Your task to perform on an android device: Open the map Image 0: 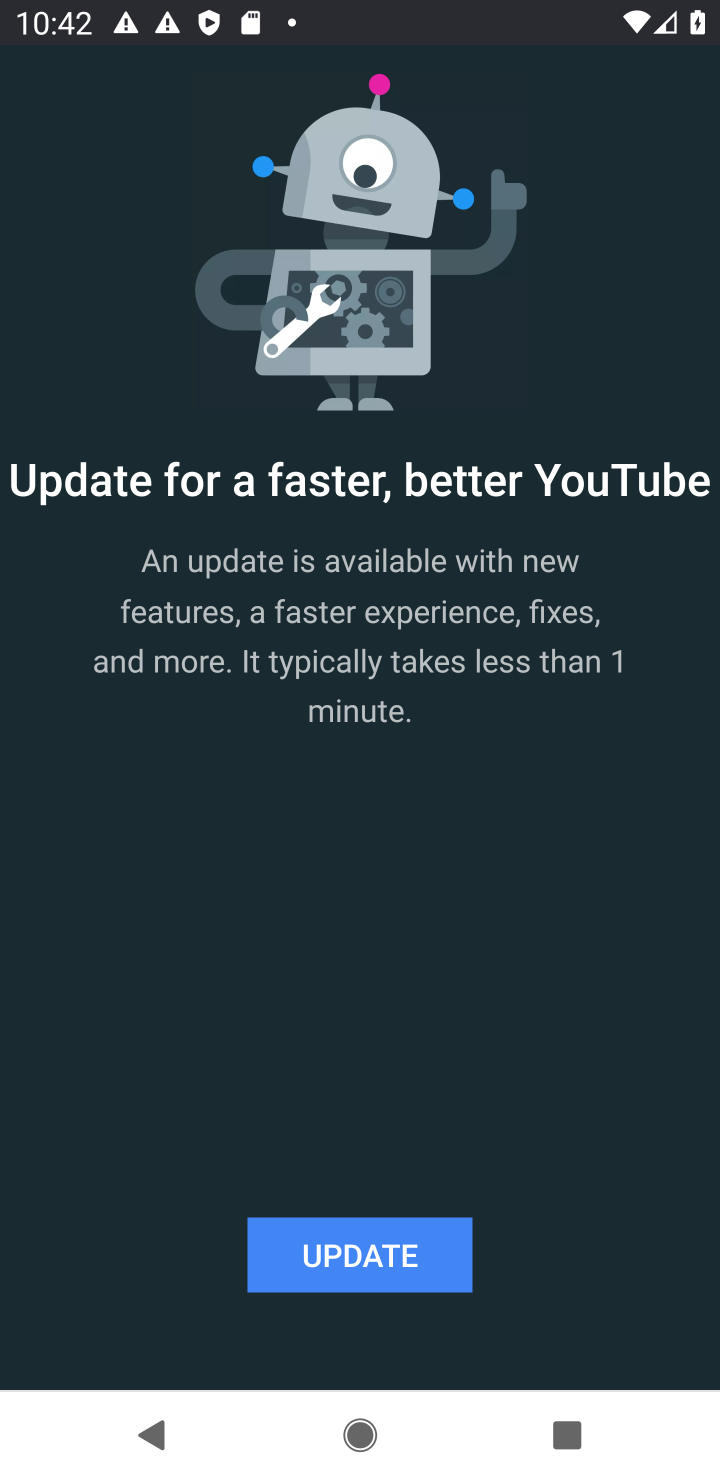
Step 0: press home button
Your task to perform on an android device: Open the map Image 1: 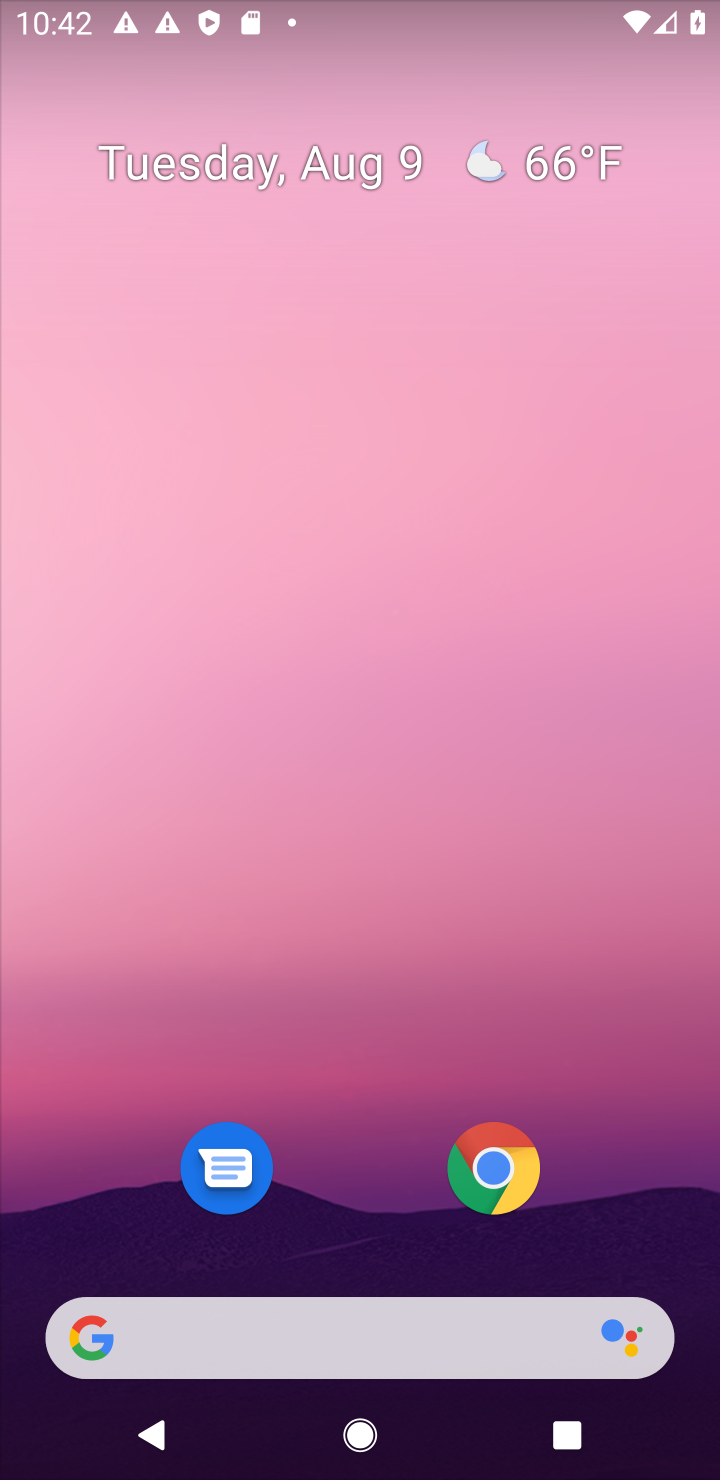
Step 1: drag from (339, 1202) to (304, 136)
Your task to perform on an android device: Open the map Image 2: 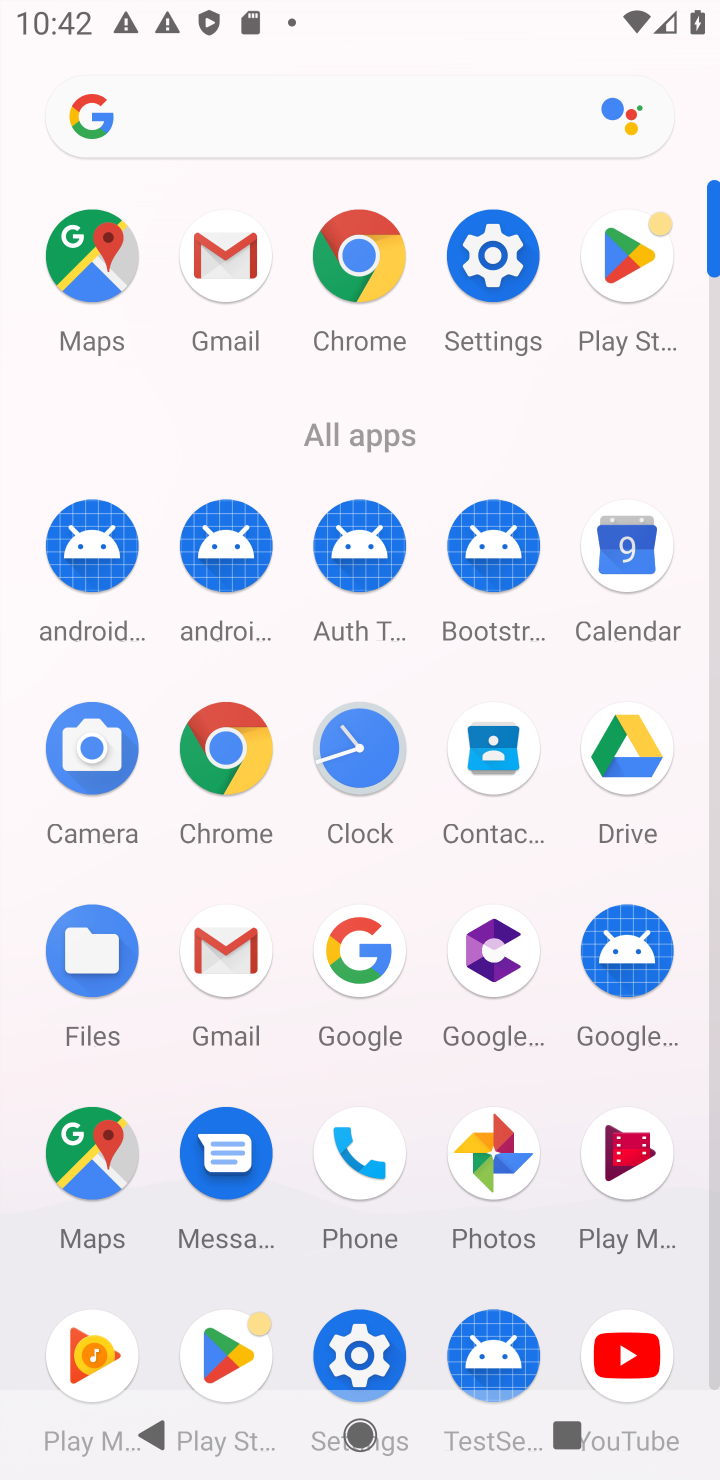
Step 2: click (92, 1155)
Your task to perform on an android device: Open the map Image 3: 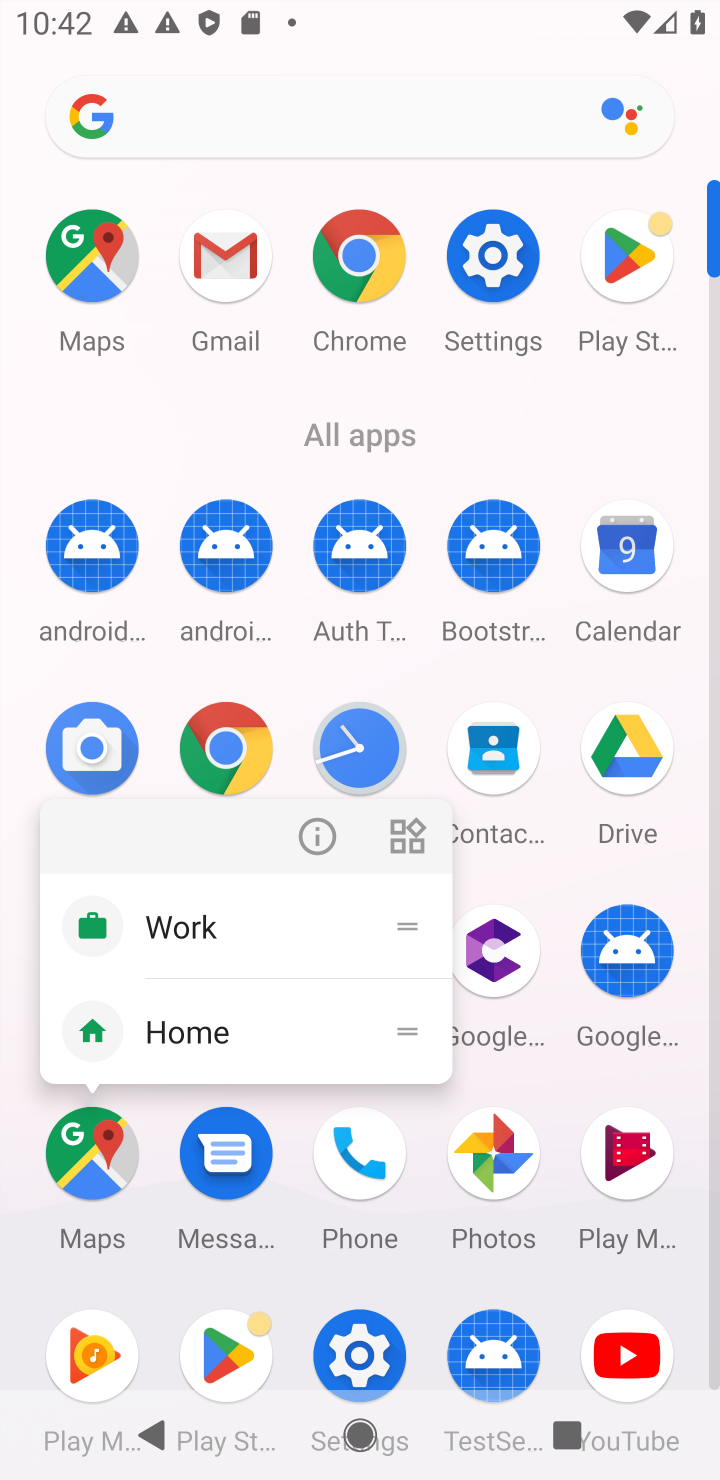
Step 3: click (103, 1154)
Your task to perform on an android device: Open the map Image 4: 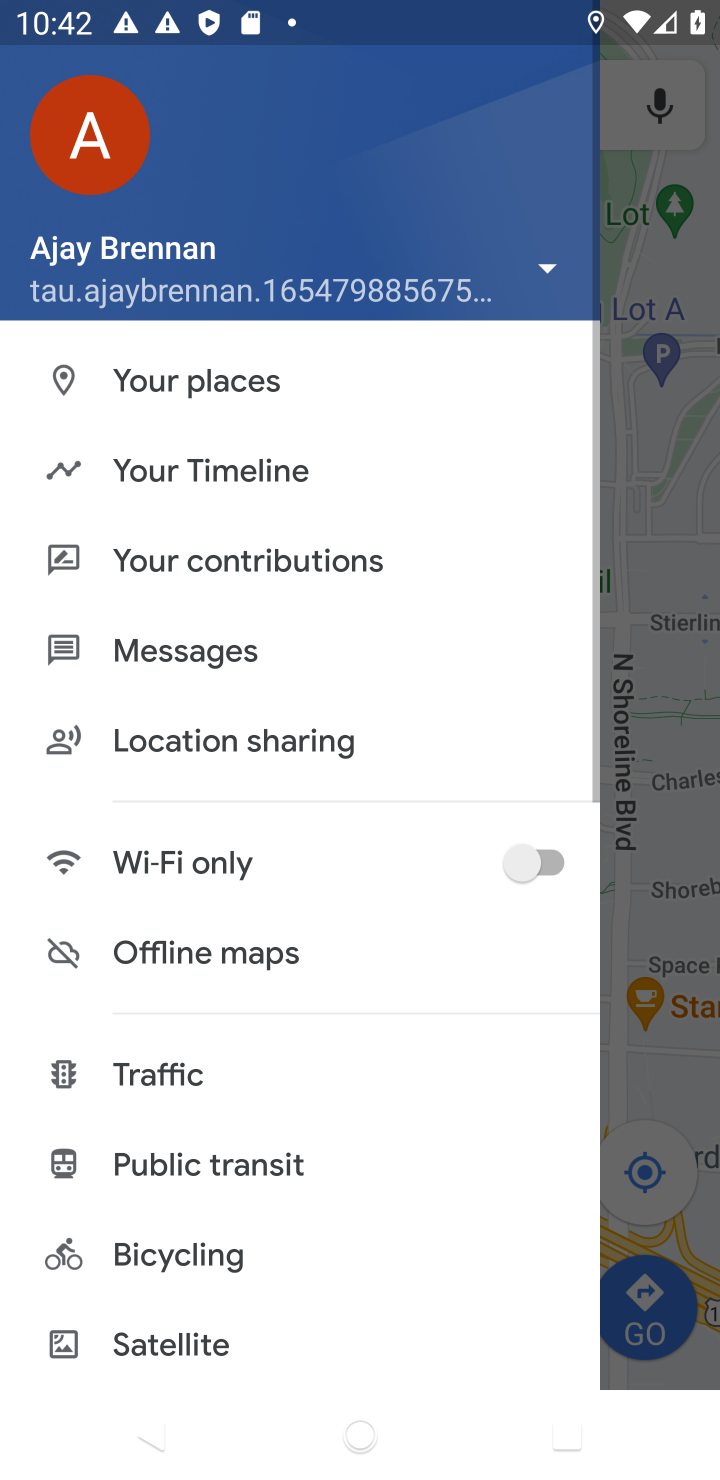
Step 4: click (655, 236)
Your task to perform on an android device: Open the map Image 5: 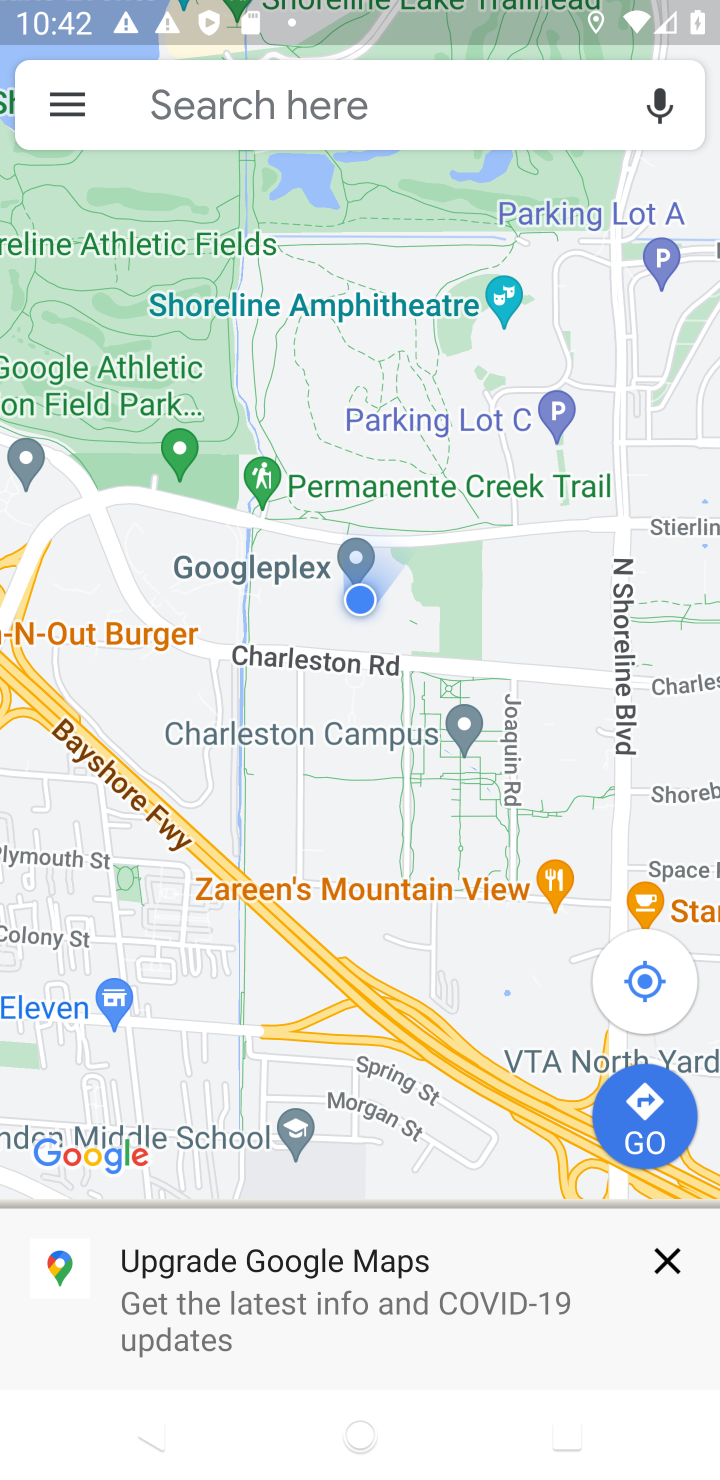
Step 5: task complete